Your task to perform on an android device: check google app version Image 0: 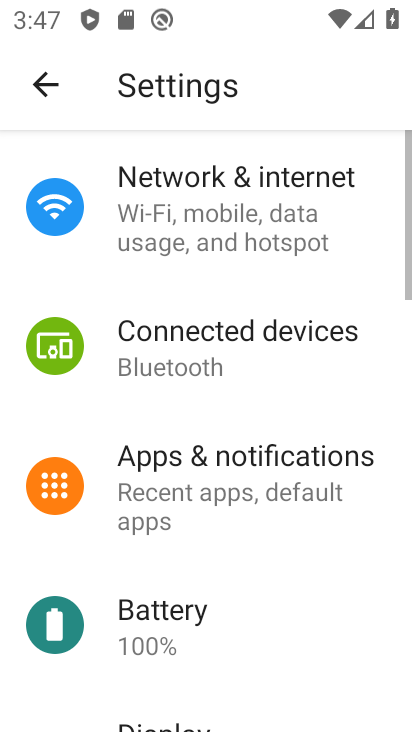
Step 0: drag from (237, 649) to (363, 310)
Your task to perform on an android device: check google app version Image 1: 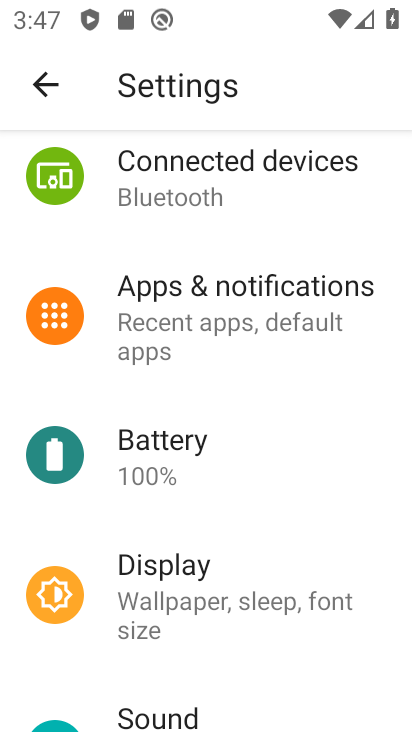
Step 1: click (275, 298)
Your task to perform on an android device: check google app version Image 2: 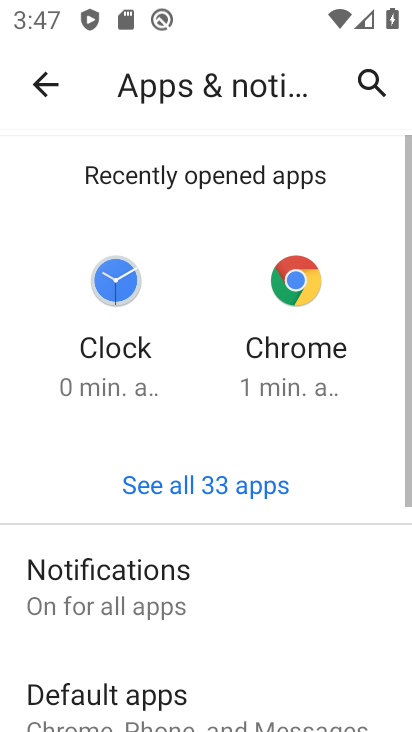
Step 2: click (201, 478)
Your task to perform on an android device: check google app version Image 3: 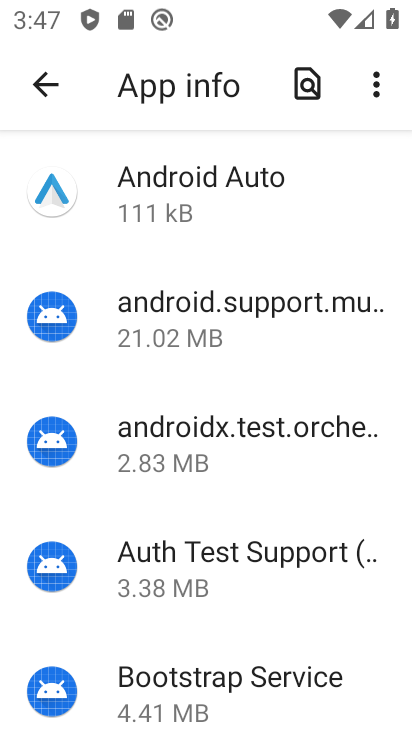
Step 3: drag from (210, 665) to (356, 215)
Your task to perform on an android device: check google app version Image 4: 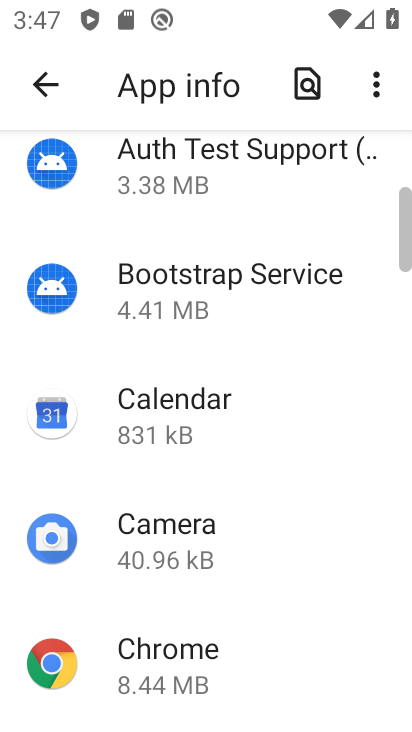
Step 4: drag from (213, 667) to (357, 185)
Your task to perform on an android device: check google app version Image 5: 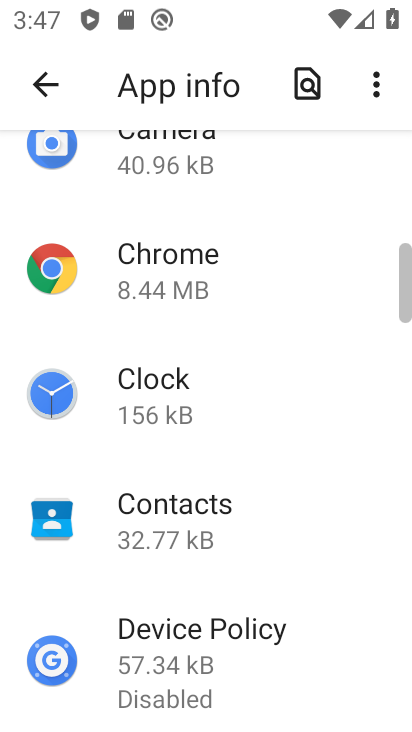
Step 5: drag from (213, 649) to (386, 187)
Your task to perform on an android device: check google app version Image 6: 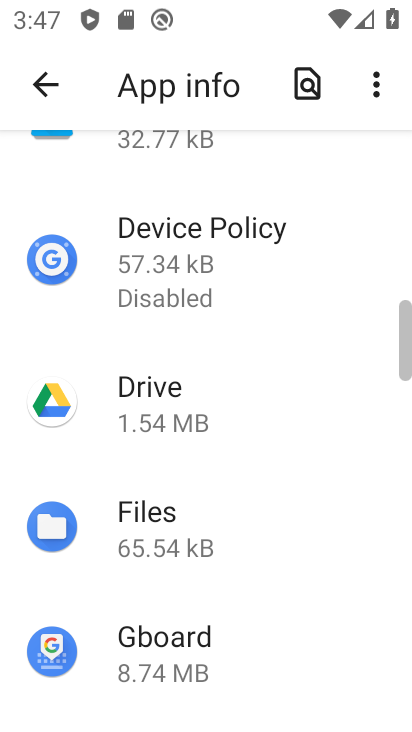
Step 6: drag from (214, 631) to (355, 241)
Your task to perform on an android device: check google app version Image 7: 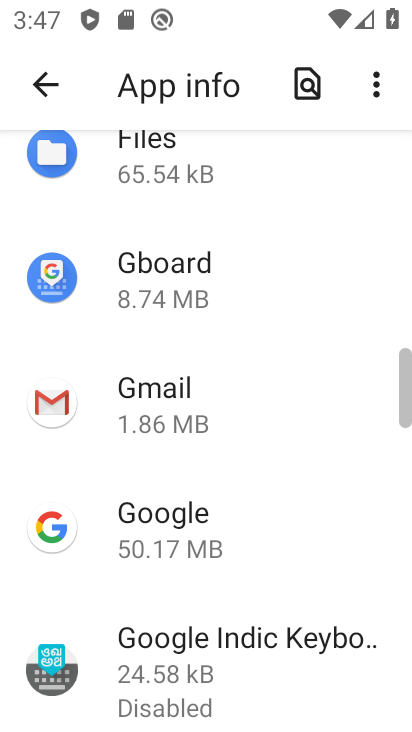
Step 7: click (181, 528)
Your task to perform on an android device: check google app version Image 8: 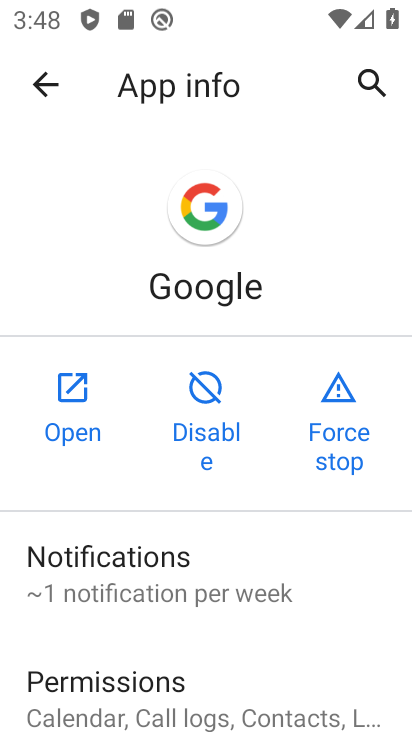
Step 8: drag from (163, 659) to (317, 288)
Your task to perform on an android device: check google app version Image 9: 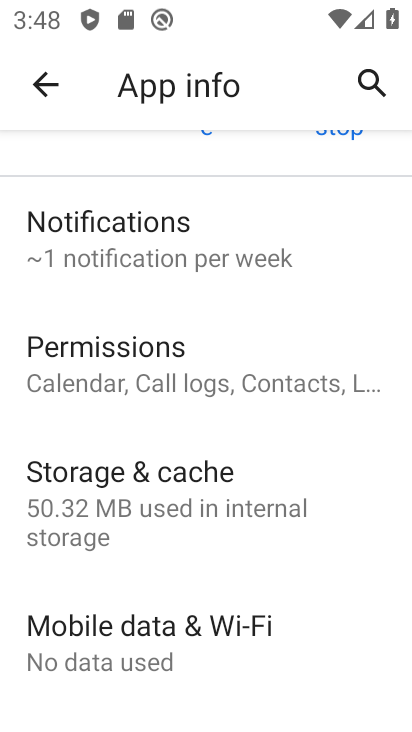
Step 9: drag from (202, 595) to (326, 232)
Your task to perform on an android device: check google app version Image 10: 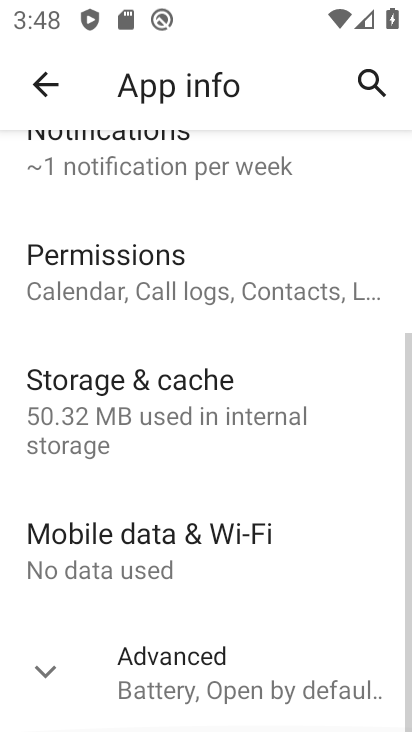
Step 10: click (195, 677)
Your task to perform on an android device: check google app version Image 11: 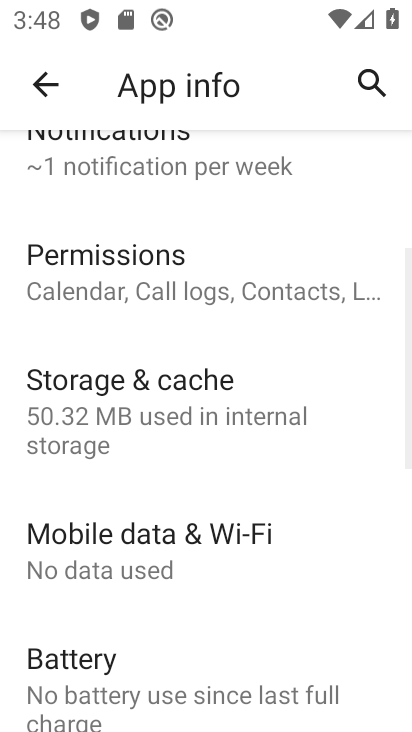
Step 11: task complete